Your task to perform on an android device: change text size in settings app Image 0: 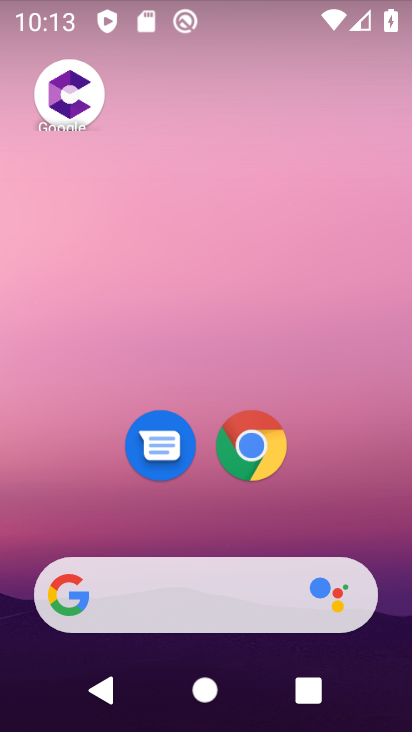
Step 0: drag from (219, 525) to (310, 63)
Your task to perform on an android device: change text size in settings app Image 1: 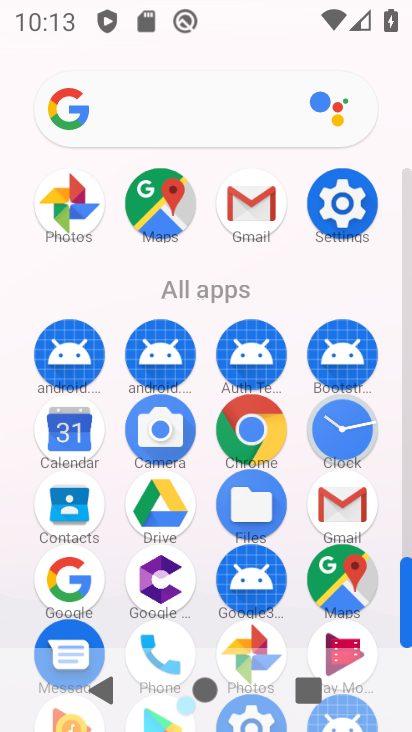
Step 1: click (350, 228)
Your task to perform on an android device: change text size in settings app Image 2: 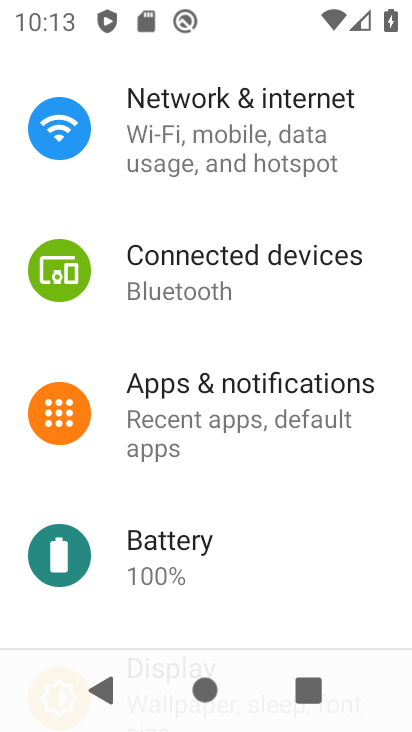
Step 2: drag from (188, 477) to (235, 259)
Your task to perform on an android device: change text size in settings app Image 3: 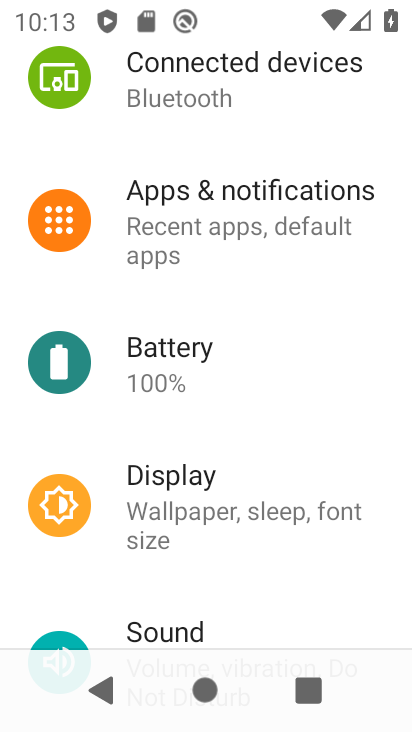
Step 3: click (187, 514)
Your task to perform on an android device: change text size in settings app Image 4: 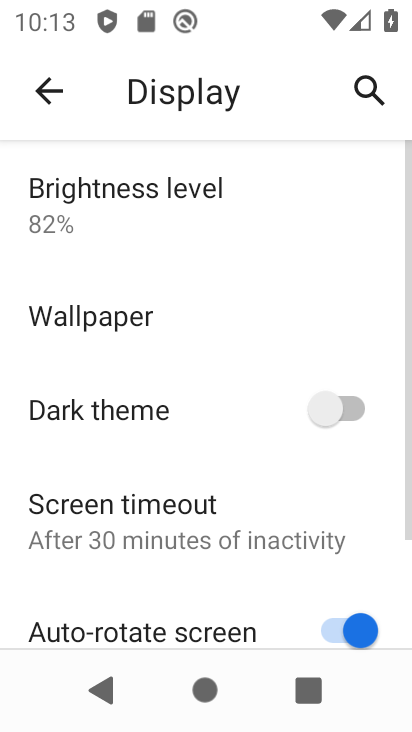
Step 4: drag from (185, 553) to (256, 207)
Your task to perform on an android device: change text size in settings app Image 5: 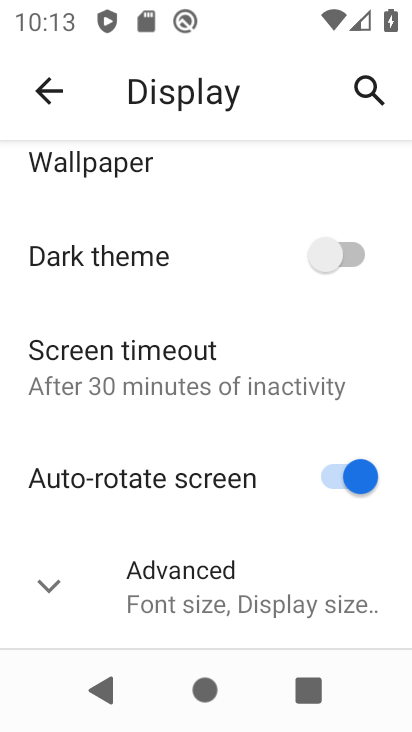
Step 5: click (160, 567)
Your task to perform on an android device: change text size in settings app Image 6: 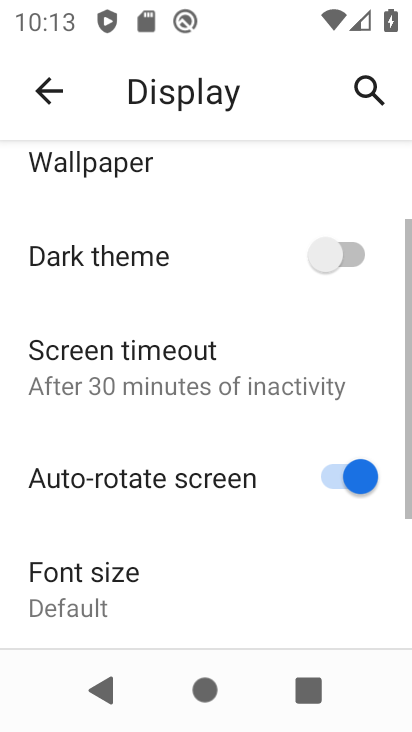
Step 6: drag from (160, 567) to (200, 379)
Your task to perform on an android device: change text size in settings app Image 7: 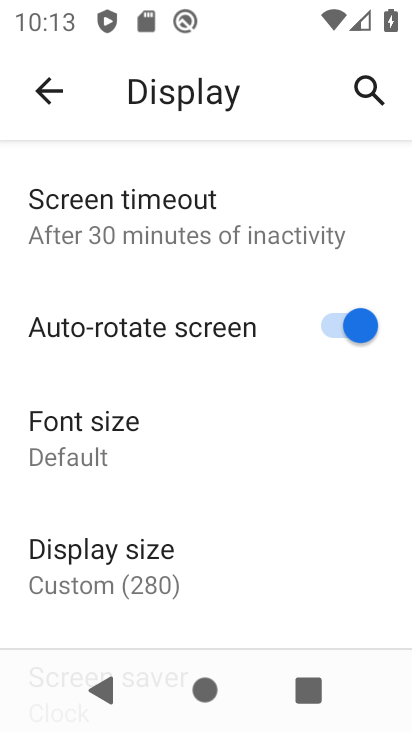
Step 7: click (115, 428)
Your task to perform on an android device: change text size in settings app Image 8: 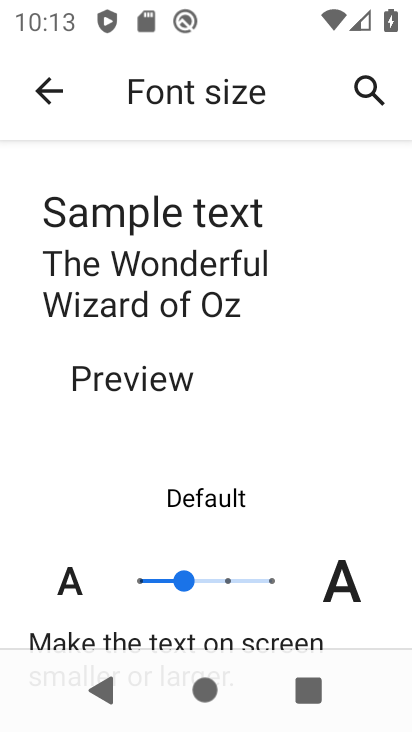
Step 8: click (129, 579)
Your task to perform on an android device: change text size in settings app Image 9: 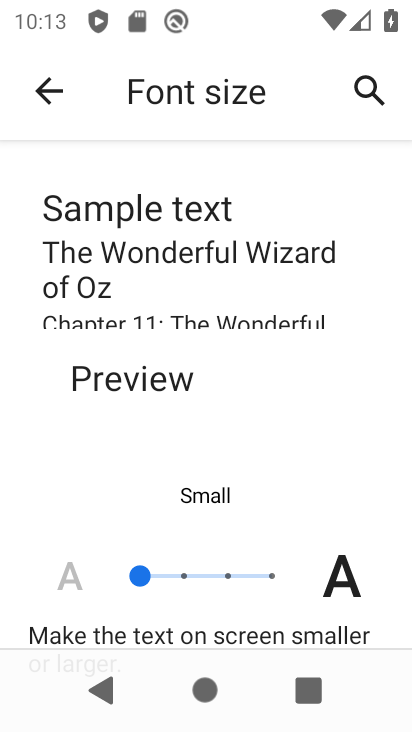
Step 9: task complete